Your task to perform on an android device: move an email to a new category in the gmail app Image 0: 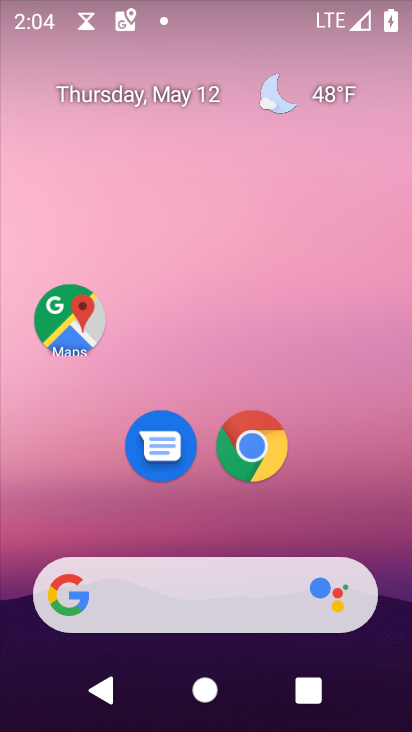
Step 0: drag from (273, 501) to (278, 189)
Your task to perform on an android device: move an email to a new category in the gmail app Image 1: 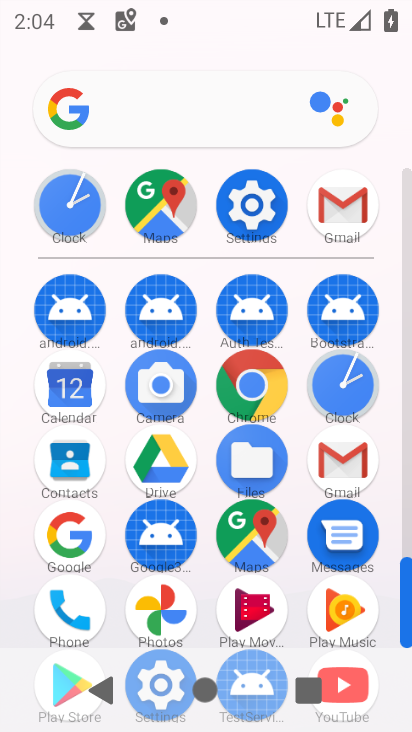
Step 1: click (335, 189)
Your task to perform on an android device: move an email to a new category in the gmail app Image 2: 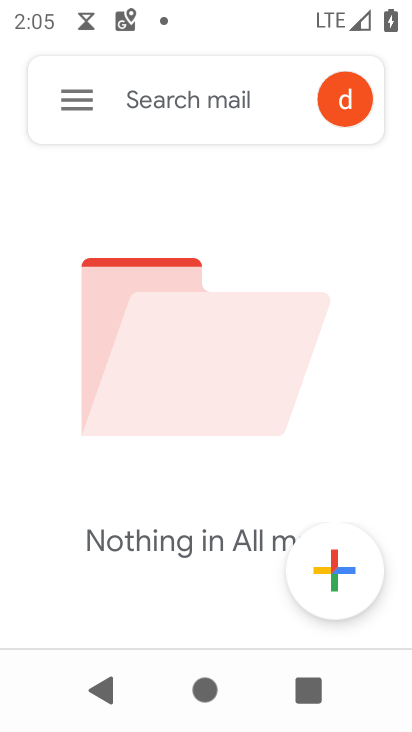
Step 2: click (74, 97)
Your task to perform on an android device: move an email to a new category in the gmail app Image 3: 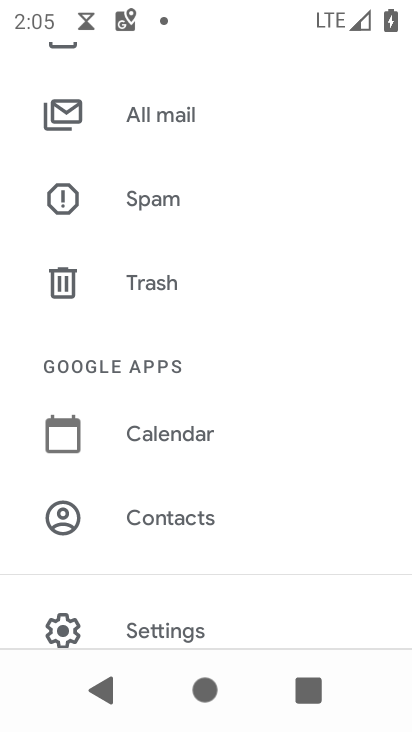
Step 3: click (157, 132)
Your task to perform on an android device: move an email to a new category in the gmail app Image 4: 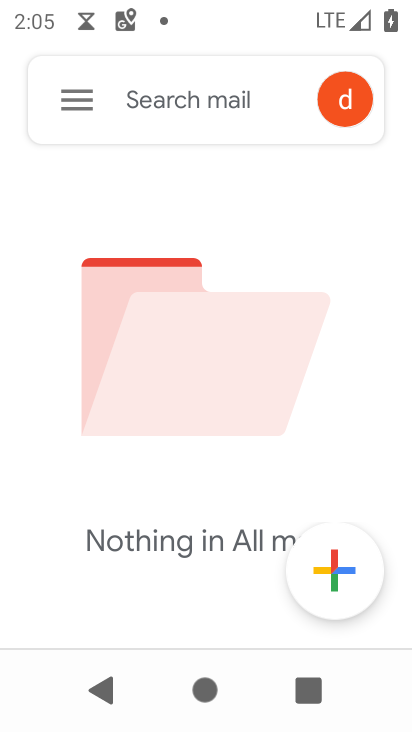
Step 4: task complete